Your task to perform on an android device: move an email to a new category in the gmail app Image 0: 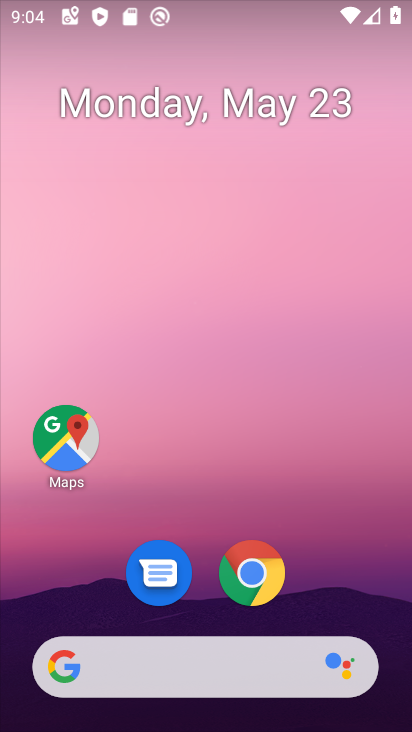
Step 0: drag from (375, 599) to (382, 264)
Your task to perform on an android device: move an email to a new category in the gmail app Image 1: 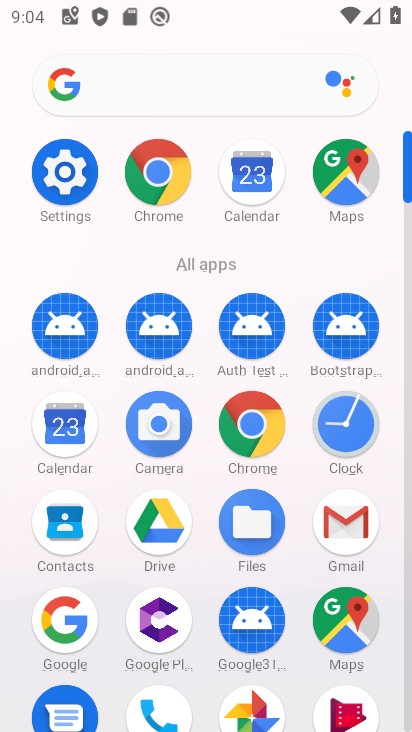
Step 1: click (363, 554)
Your task to perform on an android device: move an email to a new category in the gmail app Image 2: 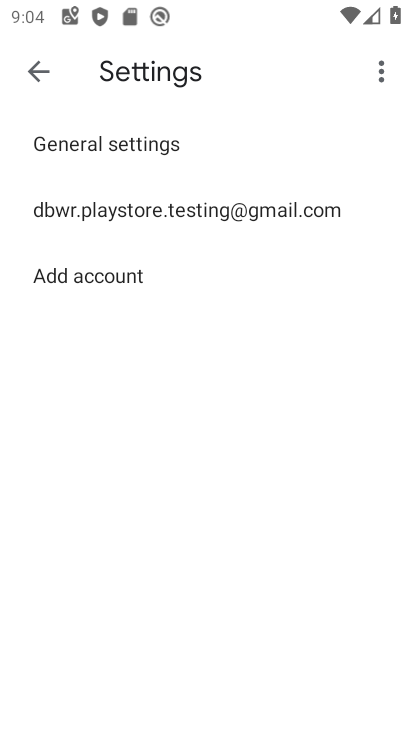
Step 2: click (67, 81)
Your task to perform on an android device: move an email to a new category in the gmail app Image 3: 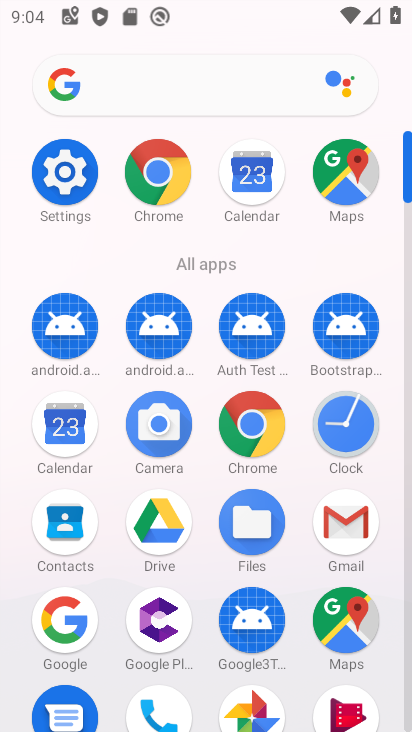
Step 3: click (337, 544)
Your task to perform on an android device: move an email to a new category in the gmail app Image 4: 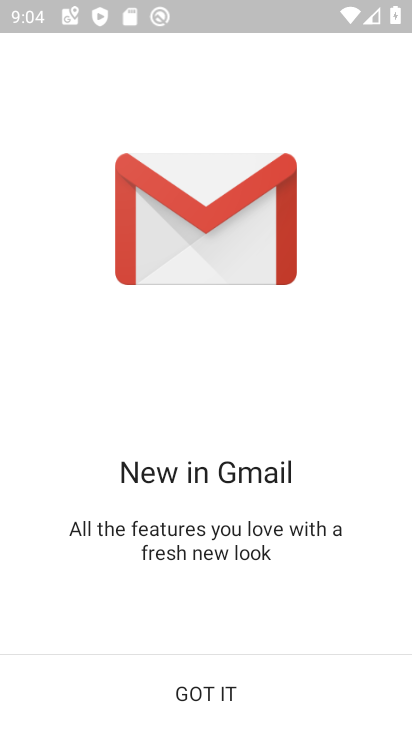
Step 4: click (280, 698)
Your task to perform on an android device: move an email to a new category in the gmail app Image 5: 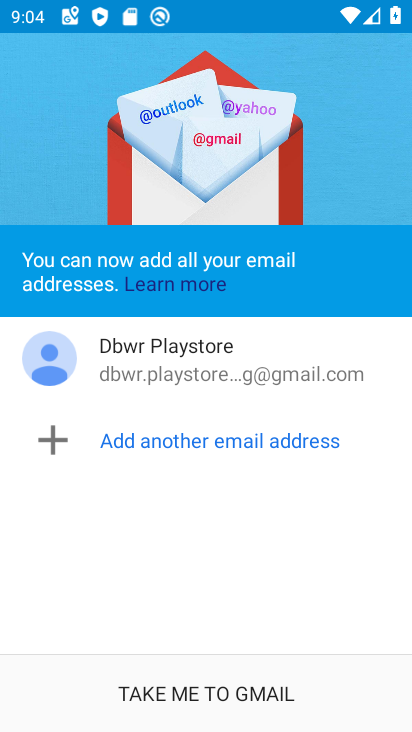
Step 5: click (280, 698)
Your task to perform on an android device: move an email to a new category in the gmail app Image 6: 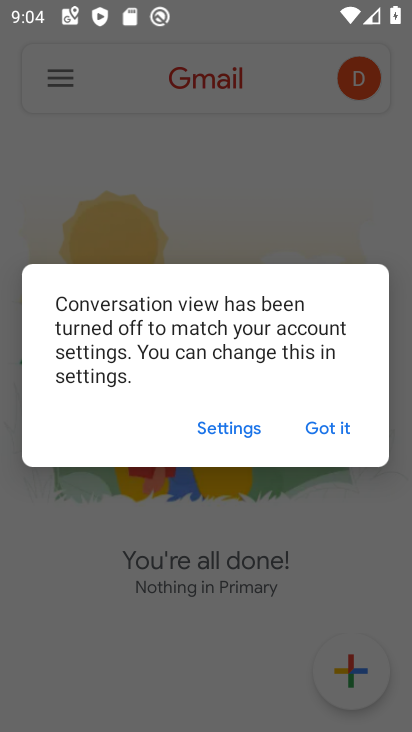
Step 6: click (320, 427)
Your task to perform on an android device: move an email to a new category in the gmail app Image 7: 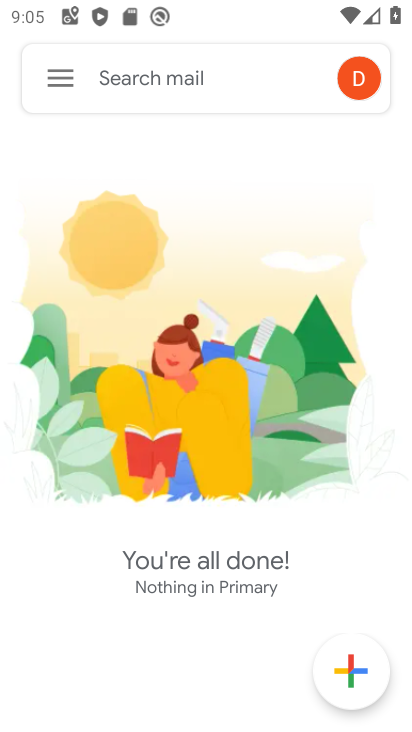
Step 7: task complete